Your task to perform on an android device: Open settings Image 0: 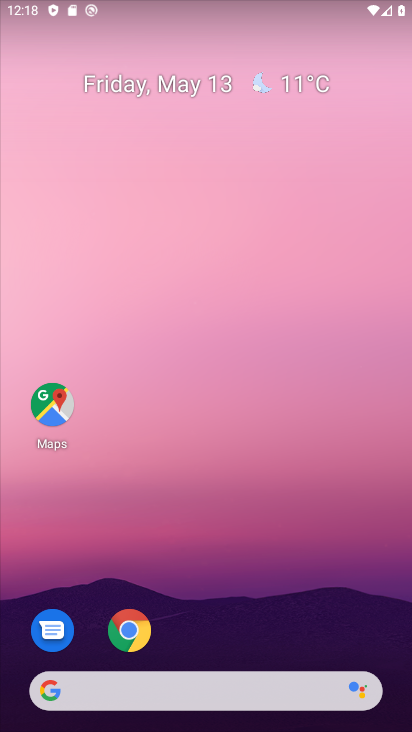
Step 0: drag from (62, 575) to (201, 164)
Your task to perform on an android device: Open settings Image 1: 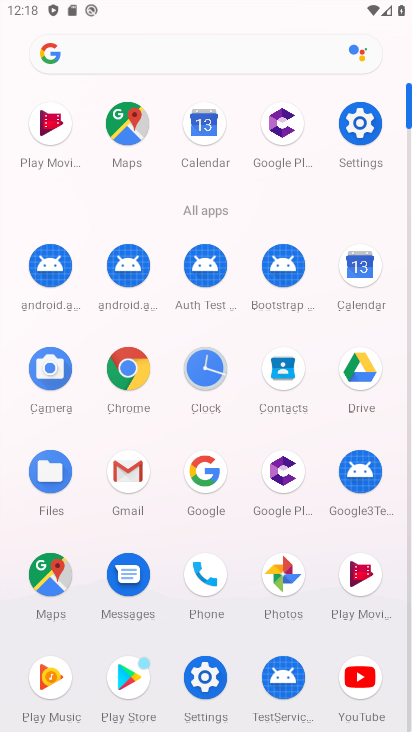
Step 1: click (354, 115)
Your task to perform on an android device: Open settings Image 2: 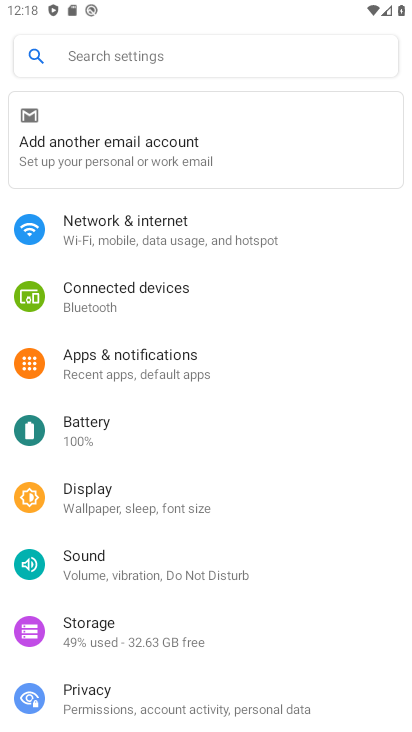
Step 2: task complete